Your task to perform on an android device: toggle pop-ups in chrome Image 0: 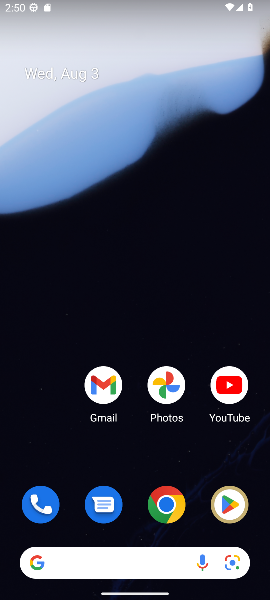
Step 0: drag from (198, 459) to (237, 24)
Your task to perform on an android device: toggle pop-ups in chrome Image 1: 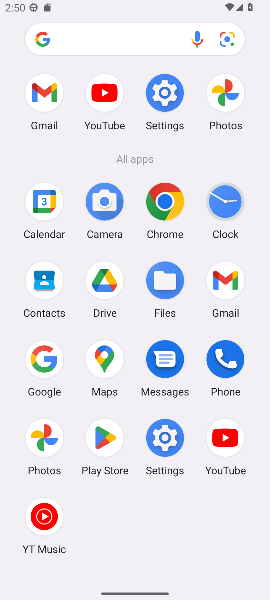
Step 1: click (159, 202)
Your task to perform on an android device: toggle pop-ups in chrome Image 2: 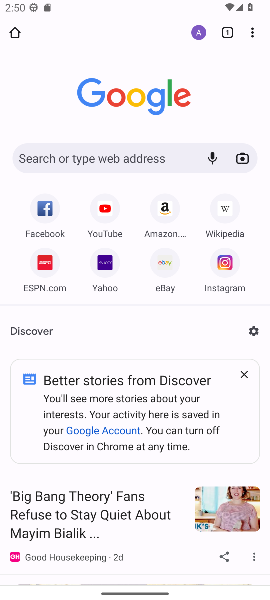
Step 2: drag from (250, 31) to (126, 296)
Your task to perform on an android device: toggle pop-ups in chrome Image 3: 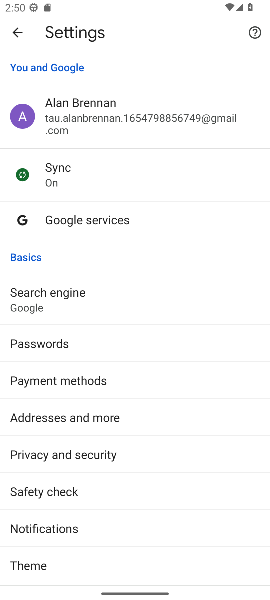
Step 3: drag from (157, 523) to (176, 153)
Your task to perform on an android device: toggle pop-ups in chrome Image 4: 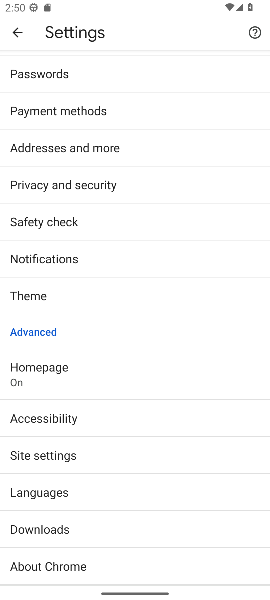
Step 4: click (65, 454)
Your task to perform on an android device: toggle pop-ups in chrome Image 5: 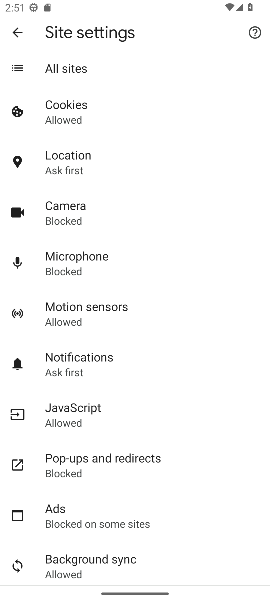
Step 5: click (65, 465)
Your task to perform on an android device: toggle pop-ups in chrome Image 6: 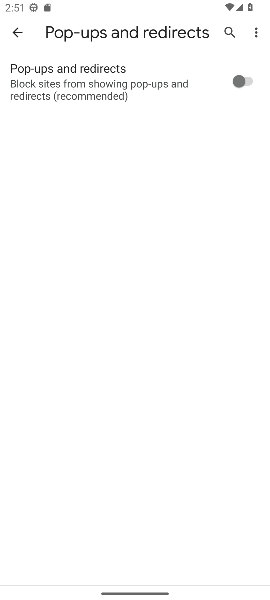
Step 6: click (230, 65)
Your task to perform on an android device: toggle pop-ups in chrome Image 7: 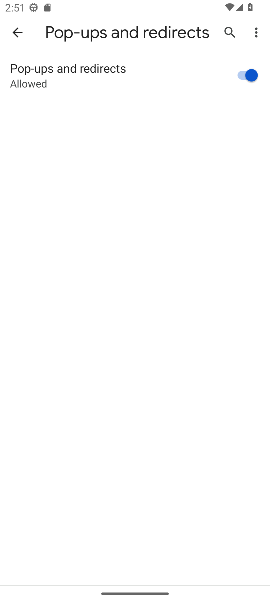
Step 7: task complete